Your task to perform on an android device: Check the weather Image 0: 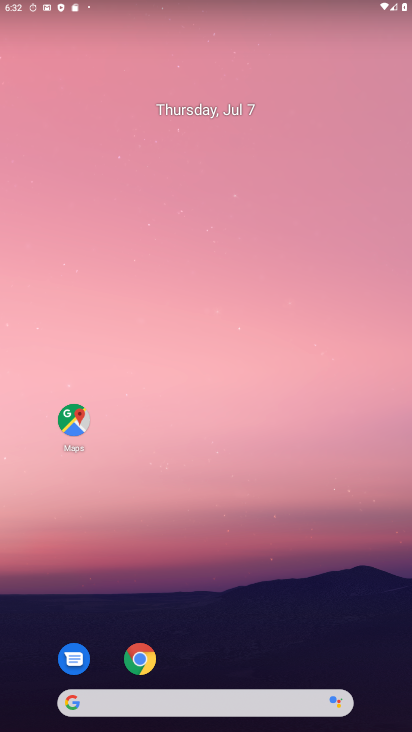
Step 0: drag from (353, 677) to (274, 9)
Your task to perform on an android device: Check the weather Image 1: 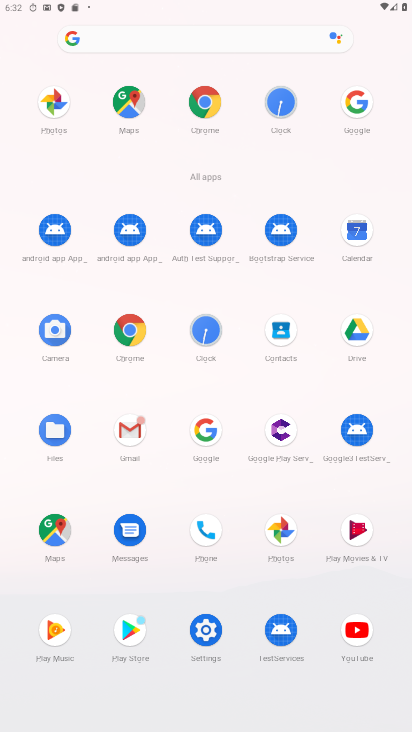
Step 1: click (213, 451)
Your task to perform on an android device: Check the weather Image 2: 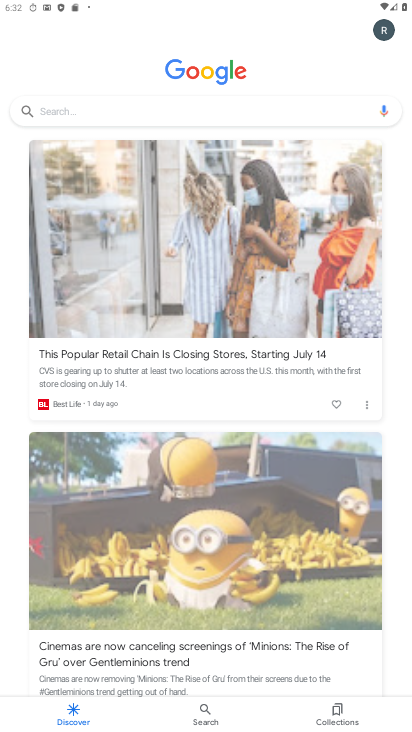
Step 2: click (196, 113)
Your task to perform on an android device: Check the weather Image 3: 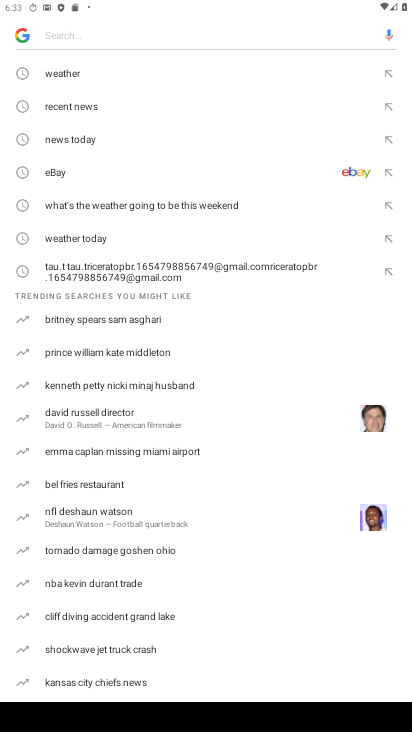
Step 3: type "Check the weather"
Your task to perform on an android device: Check the weather Image 4: 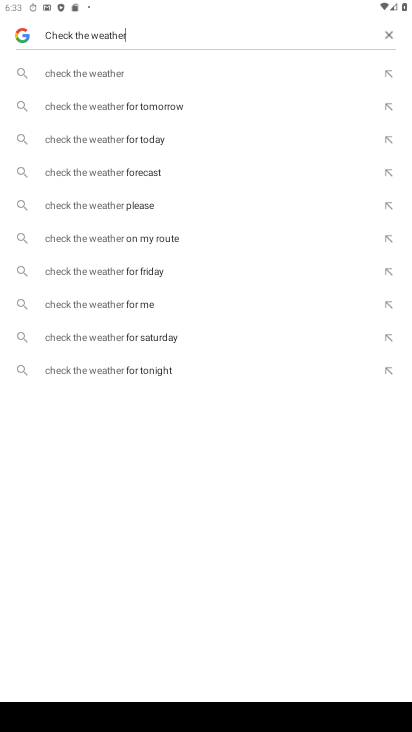
Step 4: click (132, 72)
Your task to perform on an android device: Check the weather Image 5: 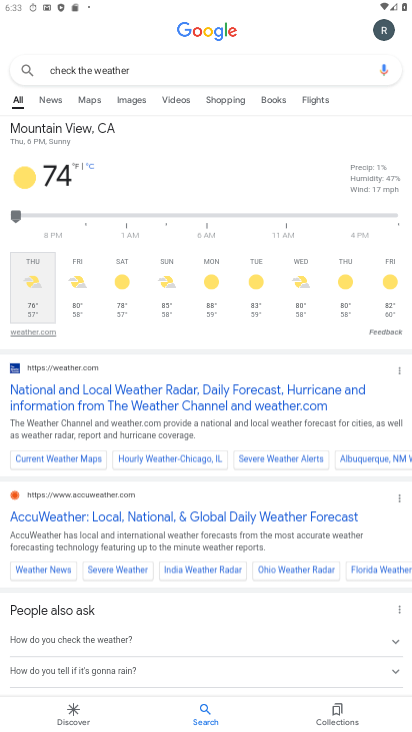
Step 5: task complete